Your task to perform on an android device: turn pop-ups off in chrome Image 0: 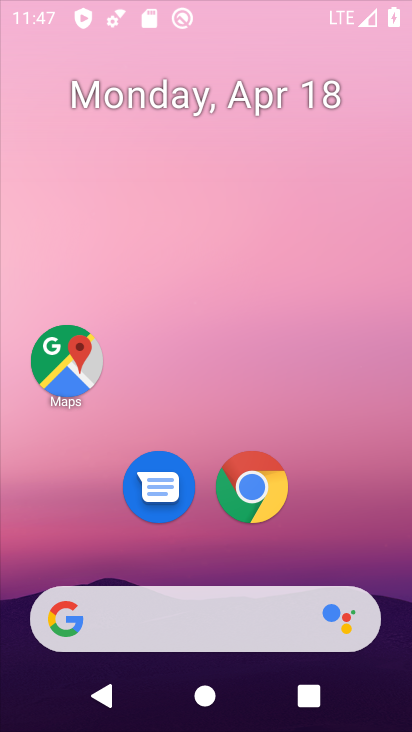
Step 0: click (244, 481)
Your task to perform on an android device: turn pop-ups off in chrome Image 1: 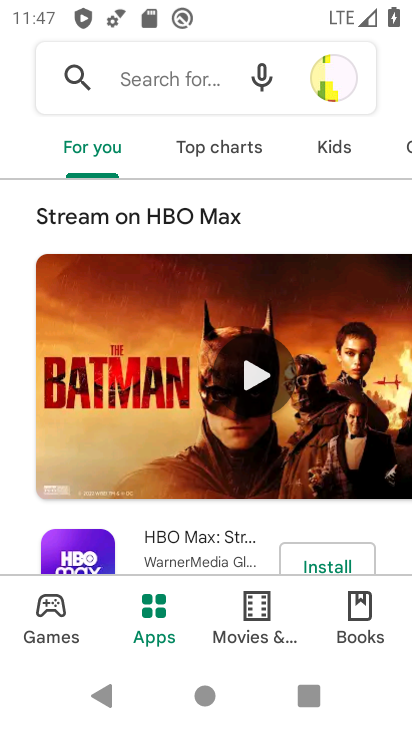
Step 1: press home button
Your task to perform on an android device: turn pop-ups off in chrome Image 2: 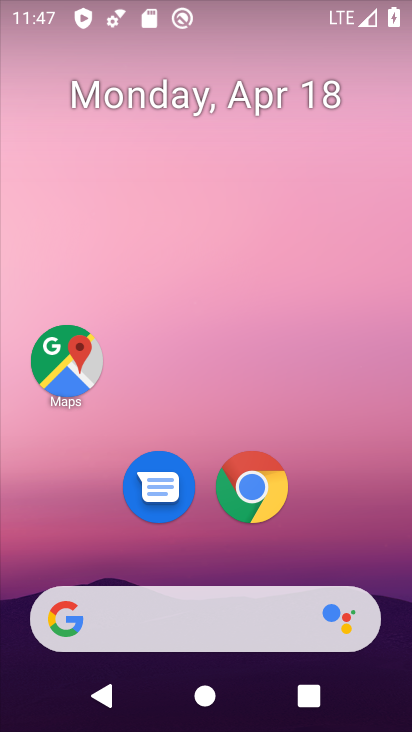
Step 2: click (259, 496)
Your task to perform on an android device: turn pop-ups off in chrome Image 3: 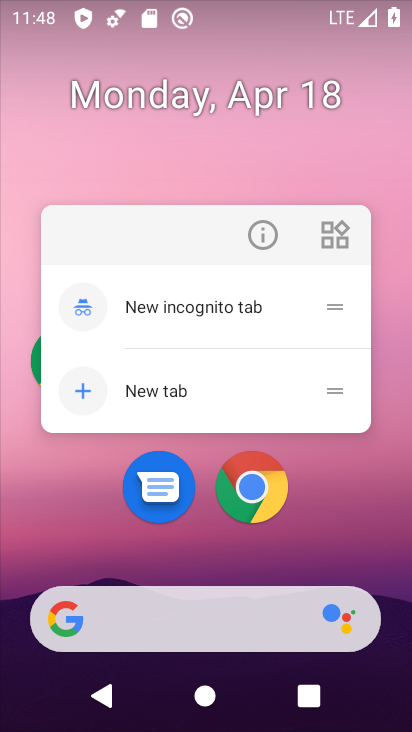
Step 3: click (252, 485)
Your task to perform on an android device: turn pop-ups off in chrome Image 4: 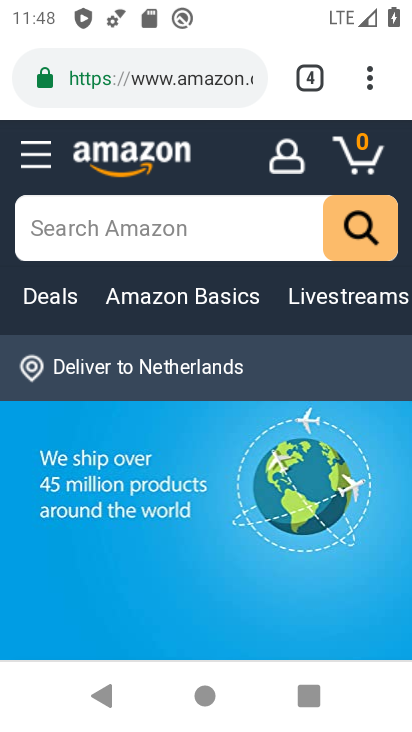
Step 4: click (365, 81)
Your task to perform on an android device: turn pop-ups off in chrome Image 5: 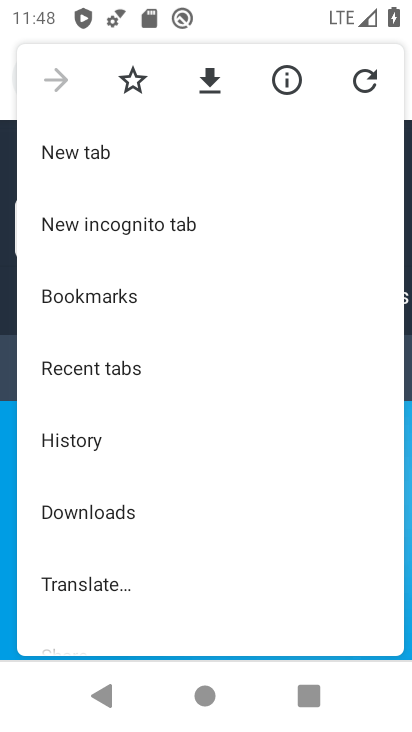
Step 5: drag from (217, 573) to (170, 195)
Your task to perform on an android device: turn pop-ups off in chrome Image 6: 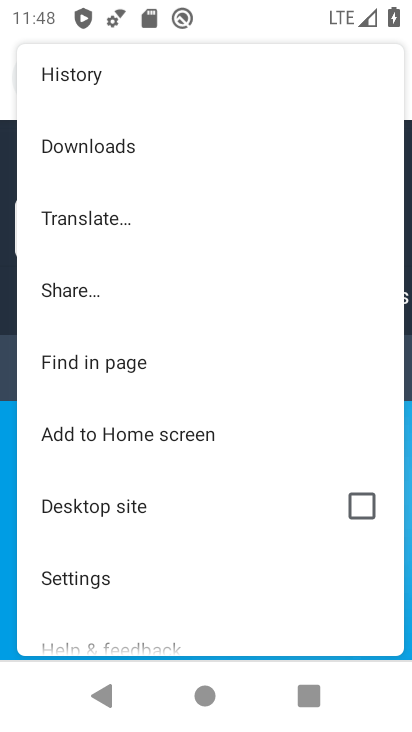
Step 6: drag from (210, 539) to (200, 257)
Your task to perform on an android device: turn pop-ups off in chrome Image 7: 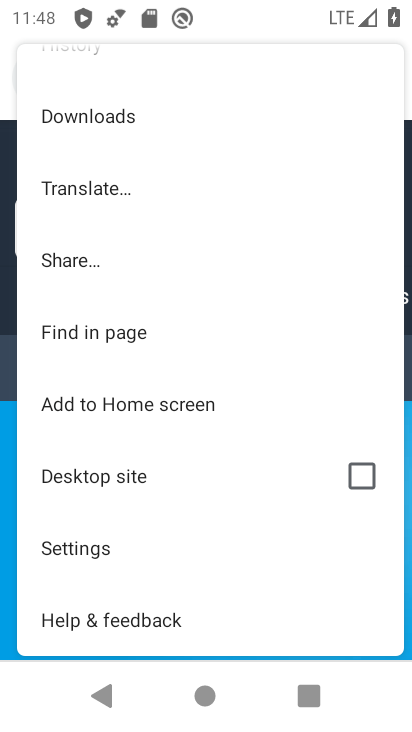
Step 7: click (57, 544)
Your task to perform on an android device: turn pop-ups off in chrome Image 8: 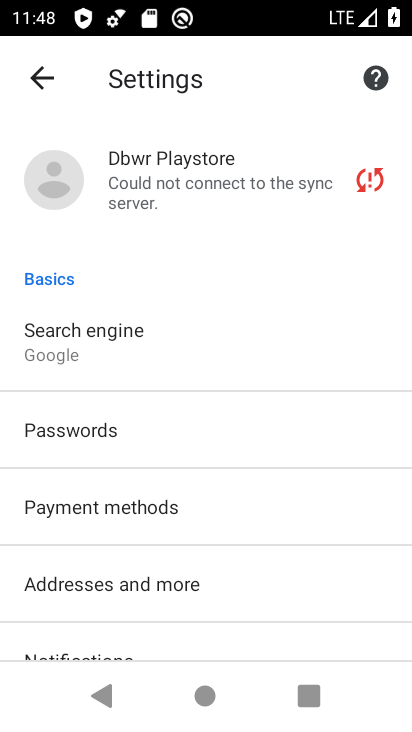
Step 8: drag from (221, 471) to (187, 202)
Your task to perform on an android device: turn pop-ups off in chrome Image 9: 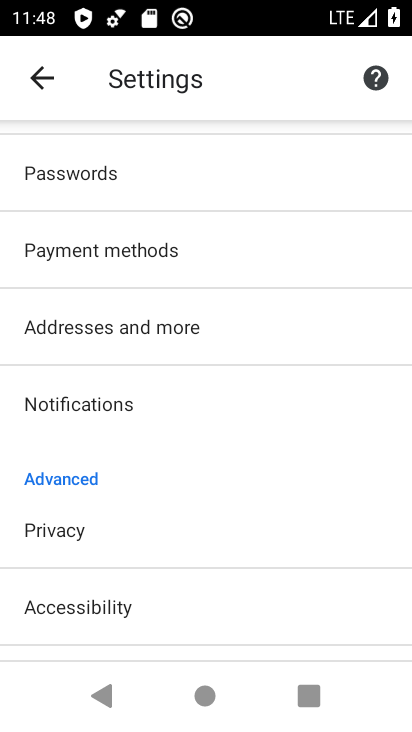
Step 9: drag from (171, 558) to (132, 247)
Your task to perform on an android device: turn pop-ups off in chrome Image 10: 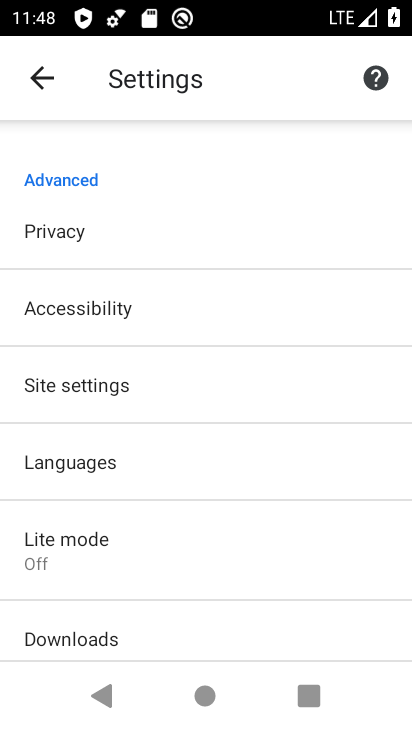
Step 10: click (72, 388)
Your task to perform on an android device: turn pop-ups off in chrome Image 11: 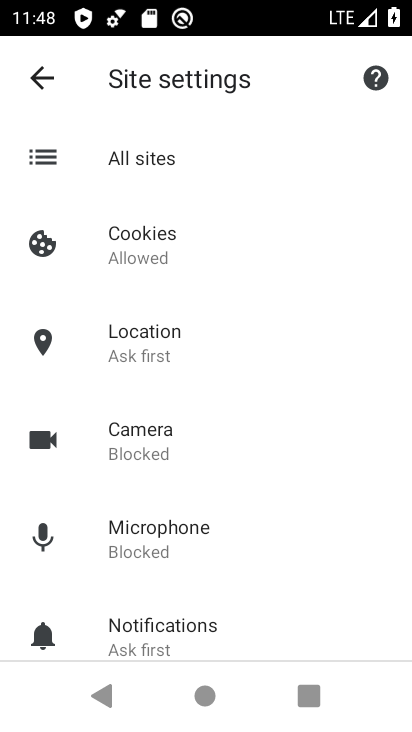
Step 11: drag from (215, 573) to (227, 230)
Your task to perform on an android device: turn pop-ups off in chrome Image 12: 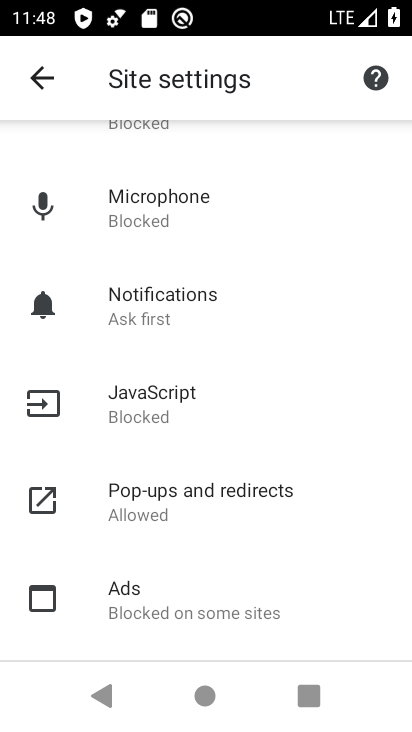
Step 12: click (150, 486)
Your task to perform on an android device: turn pop-ups off in chrome Image 13: 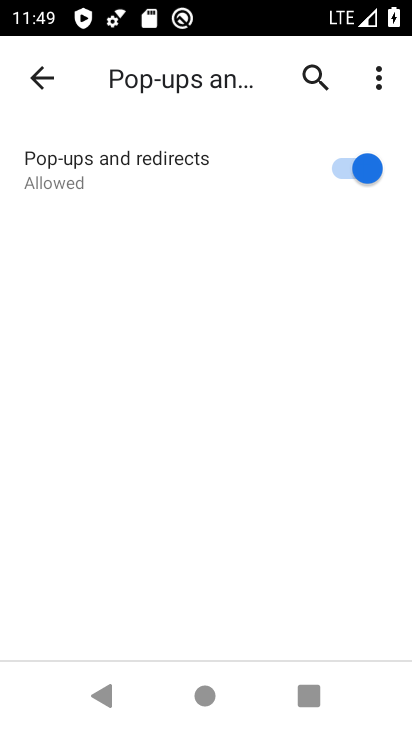
Step 13: click (377, 165)
Your task to perform on an android device: turn pop-ups off in chrome Image 14: 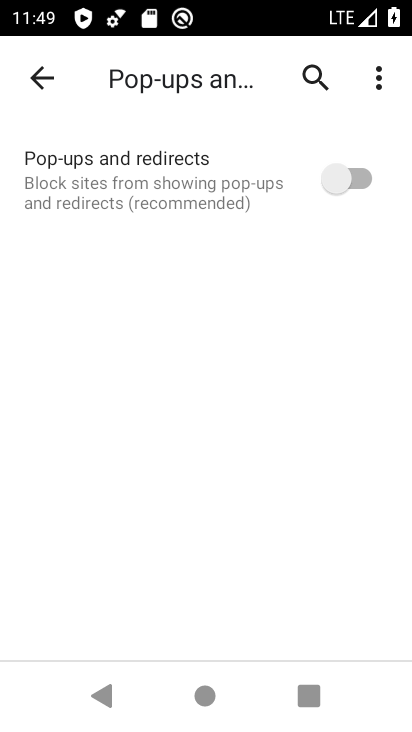
Step 14: task complete